Your task to perform on an android device: Show the shopping cart on target.com. Add "panasonic triple a" to the cart on target.com Image 0: 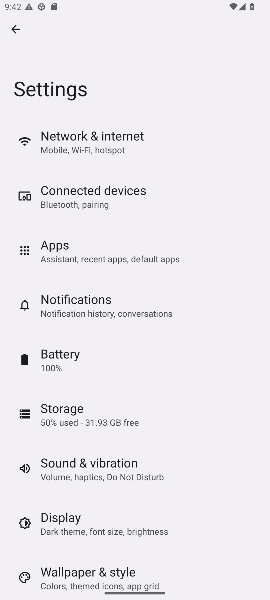
Step 0: press home button
Your task to perform on an android device: Show the shopping cart on target.com. Add "panasonic triple a" to the cart on target.com Image 1: 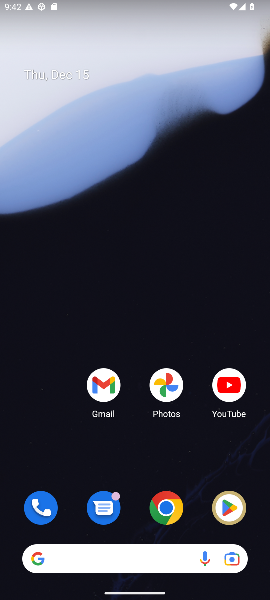
Step 1: drag from (107, 493) to (141, 231)
Your task to perform on an android device: Show the shopping cart on target.com. Add "panasonic triple a" to the cart on target.com Image 2: 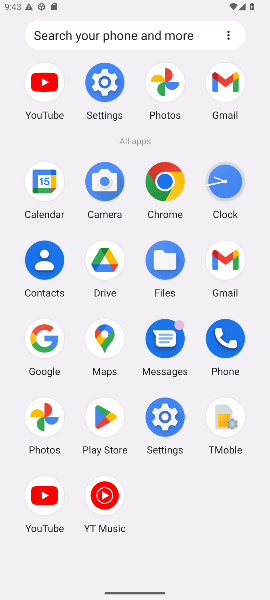
Step 2: click (216, 342)
Your task to perform on an android device: Show the shopping cart on target.com. Add "panasonic triple a" to the cart on target.com Image 3: 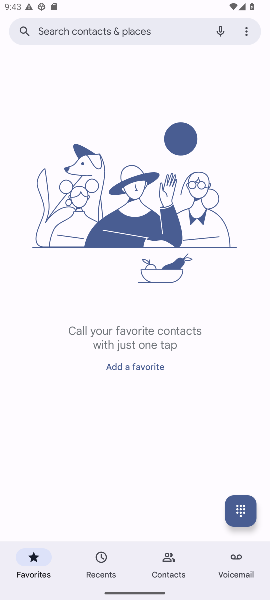
Step 3: press home button
Your task to perform on an android device: Show the shopping cart on target.com. Add "panasonic triple a" to the cart on target.com Image 4: 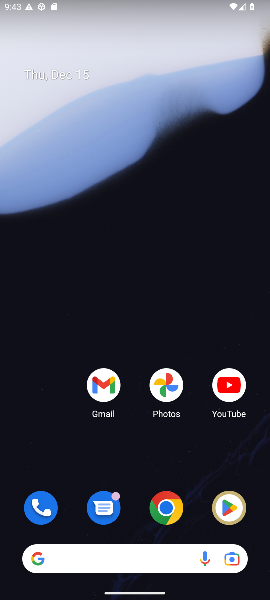
Step 4: drag from (89, 561) to (105, 177)
Your task to perform on an android device: Show the shopping cart on target.com. Add "panasonic triple a" to the cart on target.com Image 5: 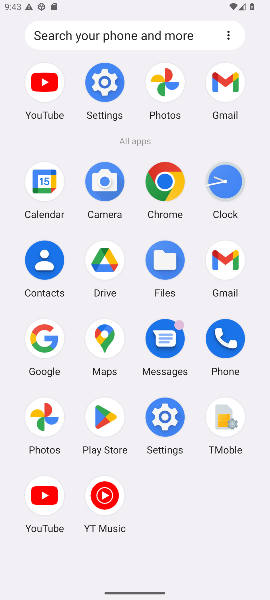
Step 5: click (41, 345)
Your task to perform on an android device: Show the shopping cart on target.com. Add "panasonic triple a" to the cart on target.com Image 6: 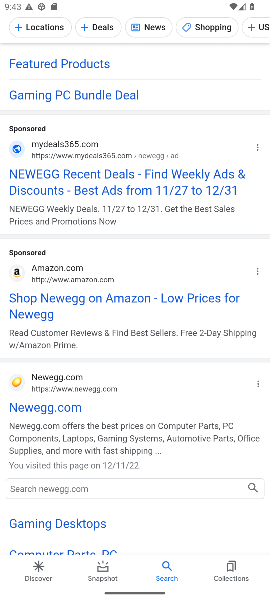
Step 6: drag from (76, 112) to (129, 464)
Your task to perform on an android device: Show the shopping cart on target.com. Add "panasonic triple a" to the cart on target.com Image 7: 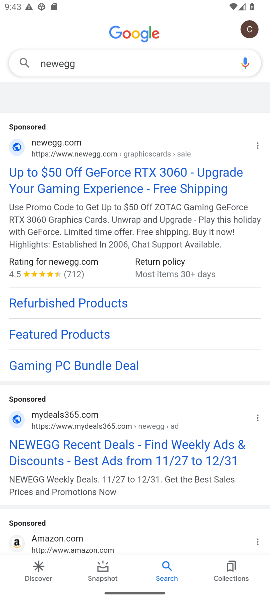
Step 7: drag from (101, 445) to (131, 133)
Your task to perform on an android device: Show the shopping cart on target.com. Add "panasonic triple a" to the cart on target.com Image 8: 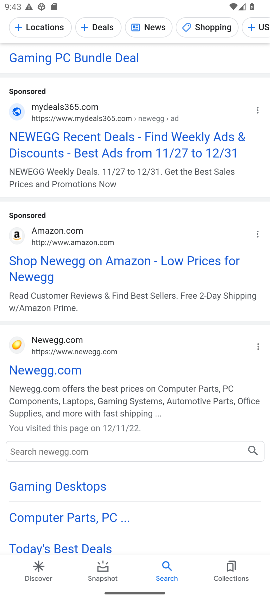
Step 8: drag from (51, 414) to (52, 164)
Your task to perform on an android device: Show the shopping cart on target.com. Add "panasonic triple a" to the cart on target.com Image 9: 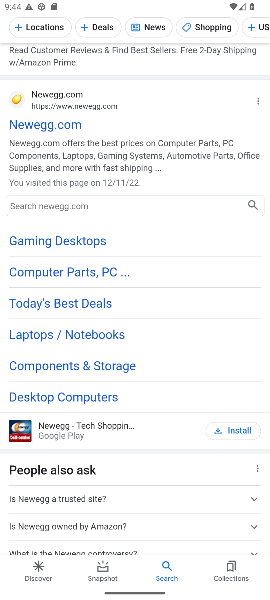
Step 9: drag from (37, 490) to (70, 254)
Your task to perform on an android device: Show the shopping cart on target.com. Add "panasonic triple a" to the cart on target.com Image 10: 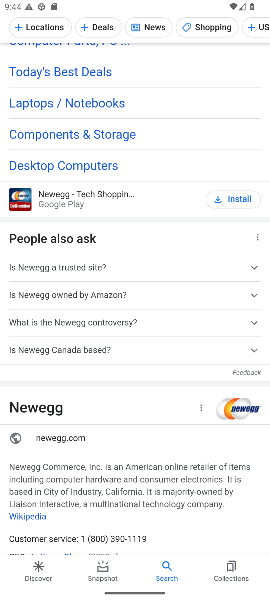
Step 10: drag from (84, 150) to (120, 479)
Your task to perform on an android device: Show the shopping cart on target.com. Add "panasonic triple a" to the cart on target.com Image 11: 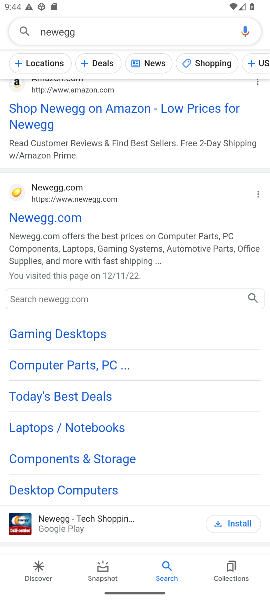
Step 11: drag from (57, 155) to (104, 424)
Your task to perform on an android device: Show the shopping cart on target.com. Add "panasonic triple a" to the cart on target.com Image 12: 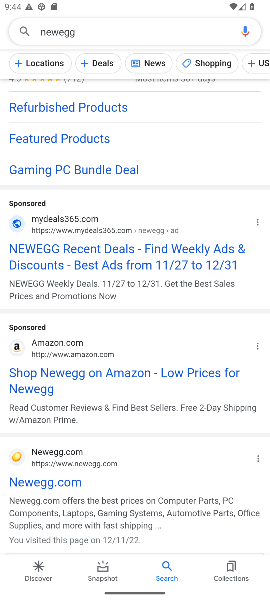
Step 12: drag from (68, 112) to (126, 429)
Your task to perform on an android device: Show the shopping cart on target.com. Add "panasonic triple a" to the cart on target.com Image 13: 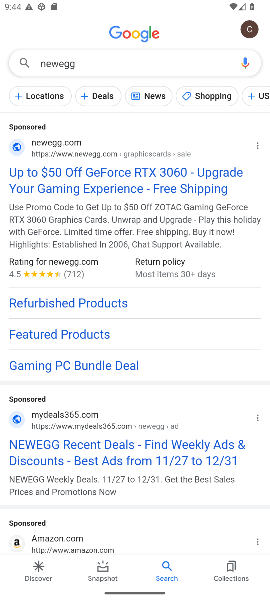
Step 13: drag from (46, 149) to (95, 389)
Your task to perform on an android device: Show the shopping cart on target.com. Add "panasonic triple a" to the cart on target.com Image 14: 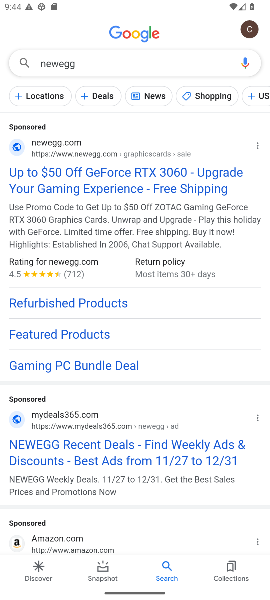
Step 14: click (60, 66)
Your task to perform on an android device: Show the shopping cart on target.com. Add "panasonic triple a" to the cart on target.com Image 15: 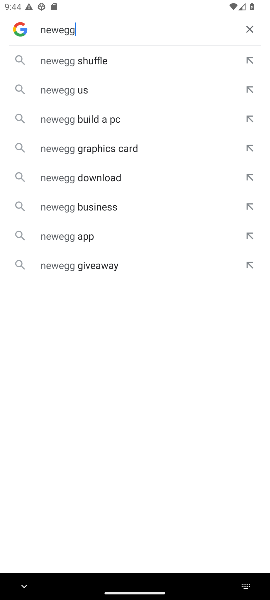
Step 15: click (255, 30)
Your task to perform on an android device: Show the shopping cart on target.com. Add "panasonic triple a" to the cart on target.com Image 16: 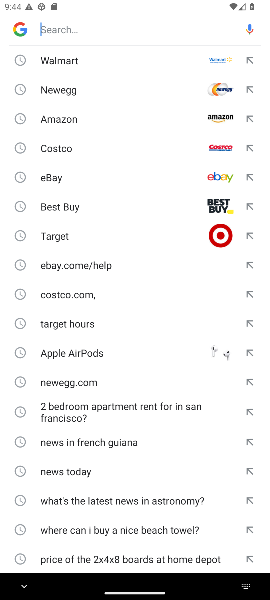
Step 16: click (51, 238)
Your task to perform on an android device: Show the shopping cart on target.com. Add "panasonic triple a" to the cart on target.com Image 17: 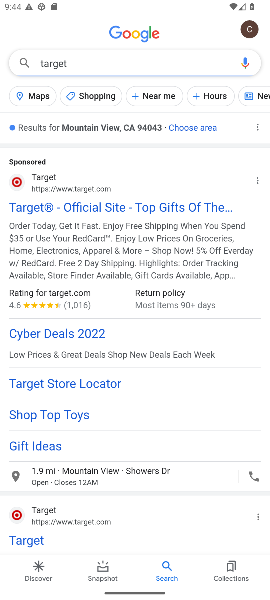
Step 17: click (72, 207)
Your task to perform on an android device: Show the shopping cart on target.com. Add "panasonic triple a" to the cart on target.com Image 18: 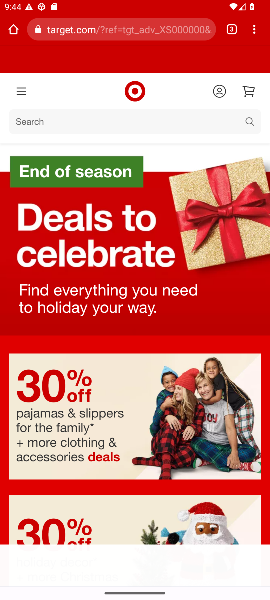
Step 18: click (54, 126)
Your task to perform on an android device: Show the shopping cart on target.com. Add "panasonic triple a" to the cart on target.com Image 19: 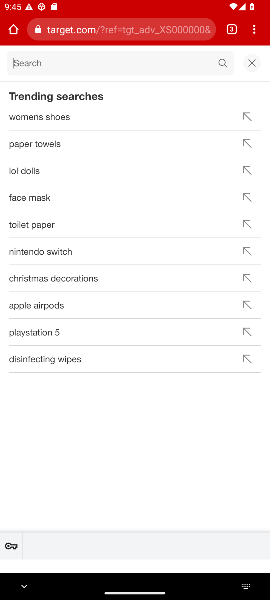
Step 19: type "panasonic triple a"
Your task to perform on an android device: Show the shopping cart on target.com. Add "panasonic triple a" to the cart on target.com Image 20: 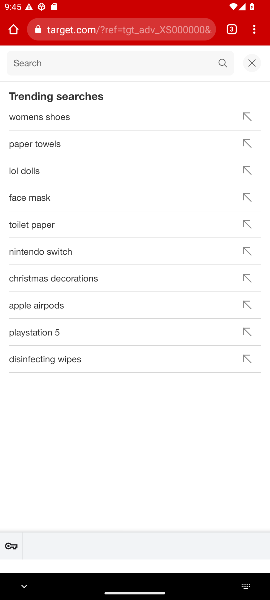
Step 20: click (219, 60)
Your task to perform on an android device: Show the shopping cart on target.com. Add "panasonic triple a" to the cart on target.com Image 21: 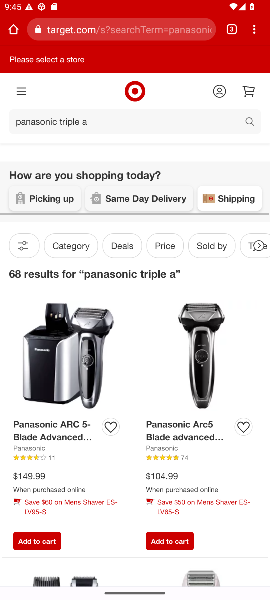
Step 21: click (38, 438)
Your task to perform on an android device: Show the shopping cart on target.com. Add "panasonic triple a" to the cart on target.com Image 22: 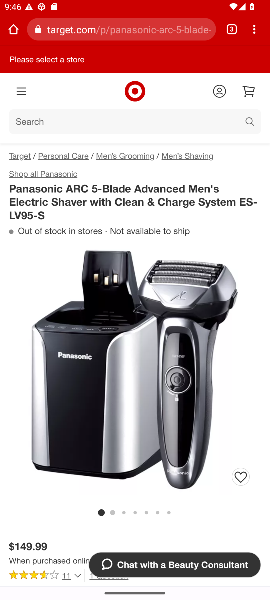
Step 22: drag from (69, 486) to (111, 70)
Your task to perform on an android device: Show the shopping cart on target.com. Add "panasonic triple a" to the cart on target.com Image 23: 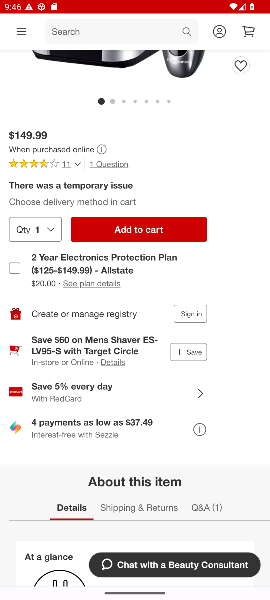
Step 23: click (155, 230)
Your task to perform on an android device: Show the shopping cart on target.com. Add "panasonic triple a" to the cart on target.com Image 24: 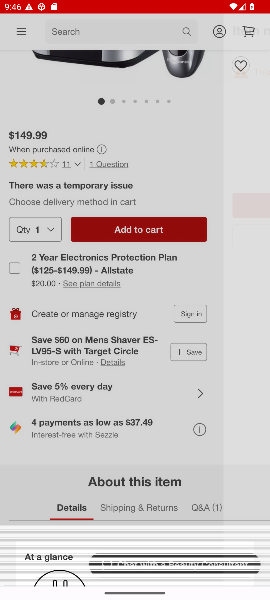
Step 24: task complete